Your task to perform on an android device: What's the weather? Image 0: 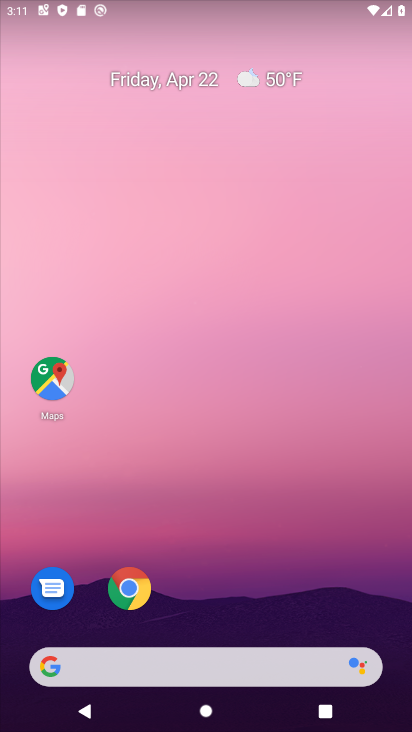
Step 0: click (257, 654)
Your task to perform on an android device: What's the weather? Image 1: 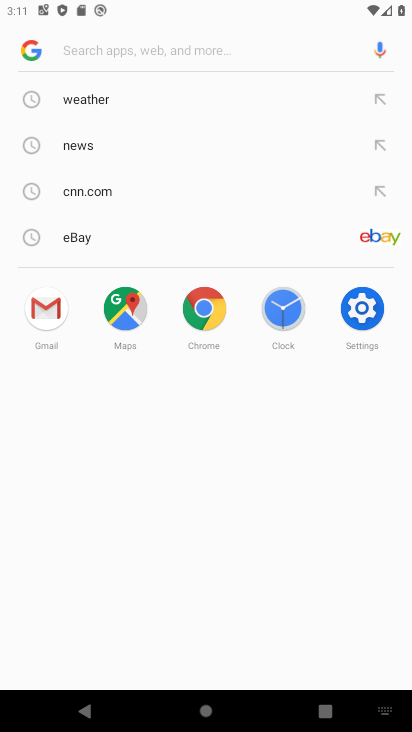
Step 1: click (96, 102)
Your task to perform on an android device: What's the weather? Image 2: 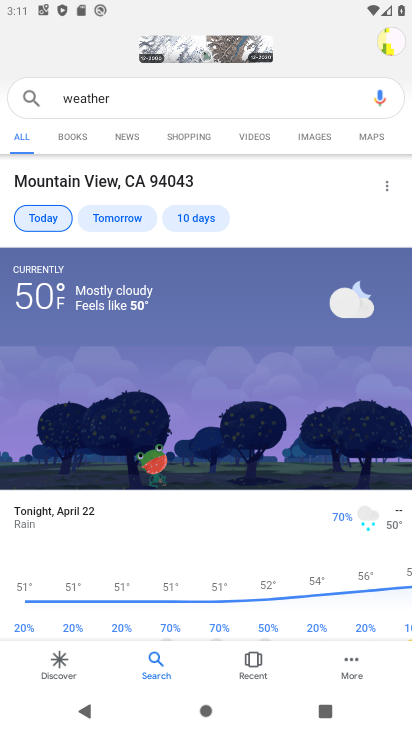
Step 2: task complete